Your task to perform on an android device: toggle sleep mode Image 0: 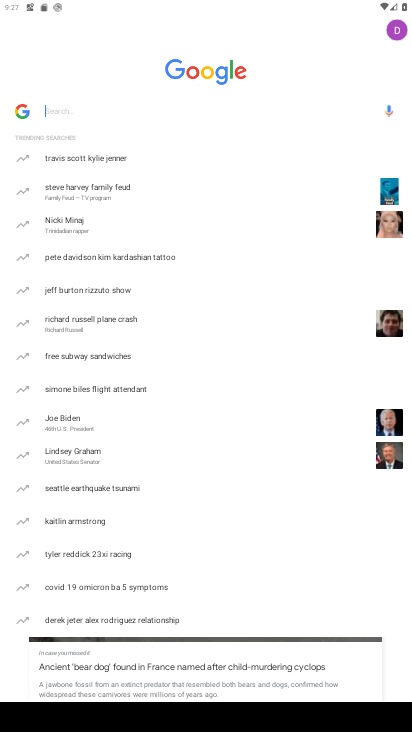
Step 0: press home button
Your task to perform on an android device: toggle sleep mode Image 1: 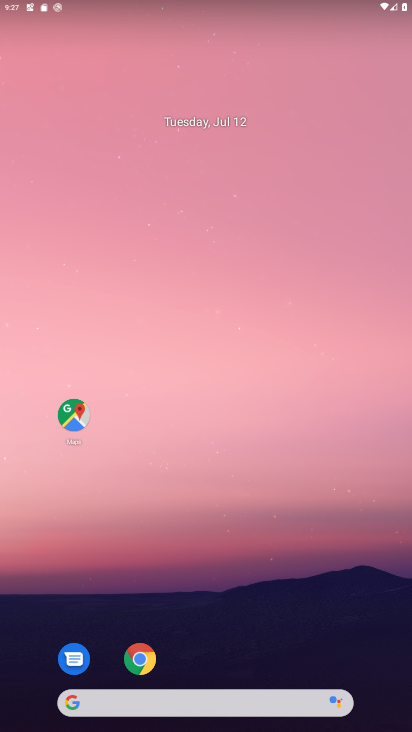
Step 1: drag from (259, 670) to (281, 265)
Your task to perform on an android device: toggle sleep mode Image 2: 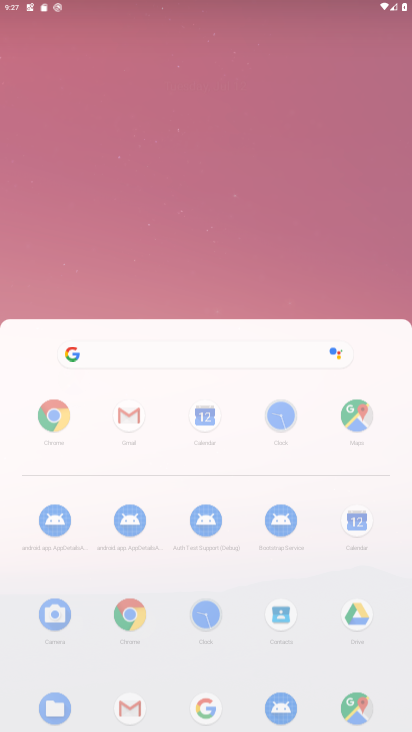
Step 2: click (311, 49)
Your task to perform on an android device: toggle sleep mode Image 3: 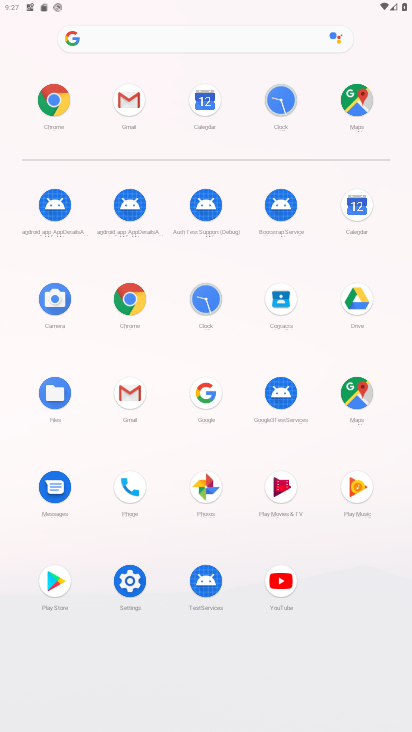
Step 3: click (119, 582)
Your task to perform on an android device: toggle sleep mode Image 4: 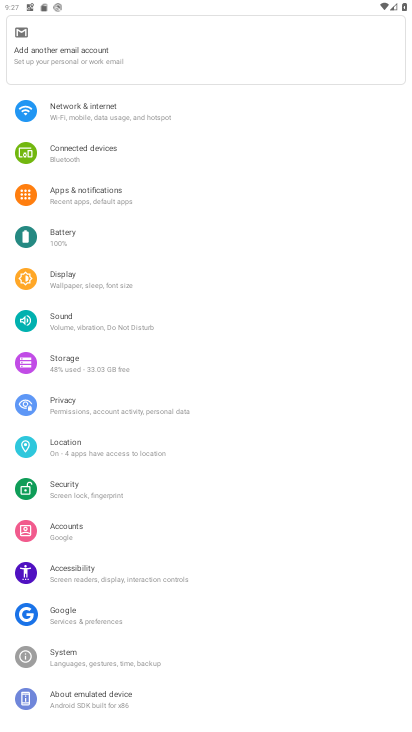
Step 4: click (61, 272)
Your task to perform on an android device: toggle sleep mode Image 5: 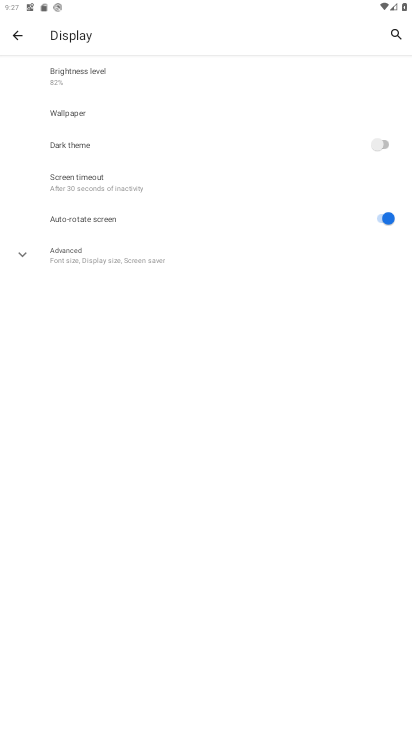
Step 5: click (76, 169)
Your task to perform on an android device: toggle sleep mode Image 6: 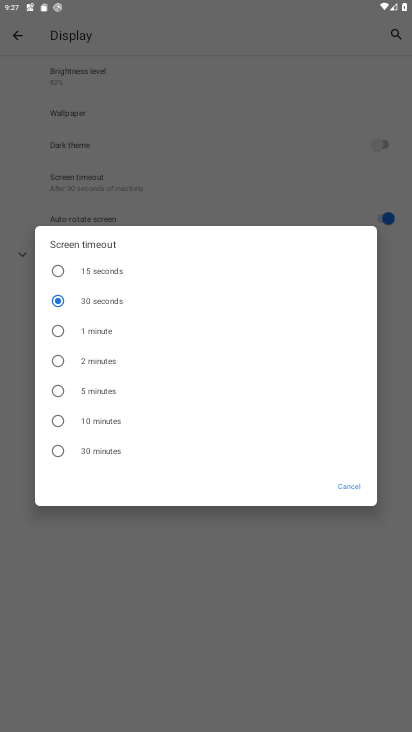
Step 6: click (66, 448)
Your task to perform on an android device: toggle sleep mode Image 7: 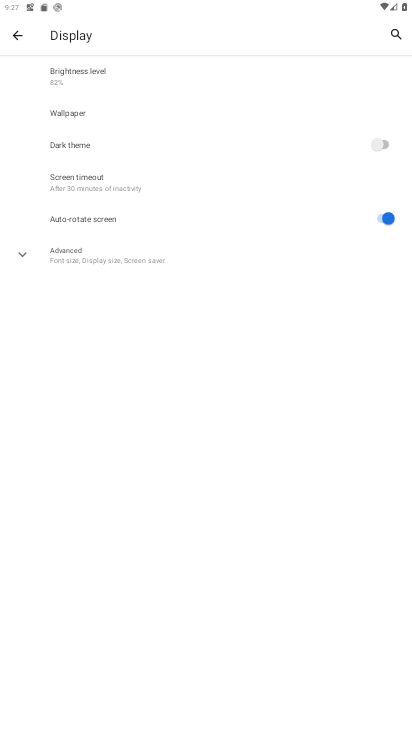
Step 7: task complete